Your task to perform on an android device: Open battery settings Image 0: 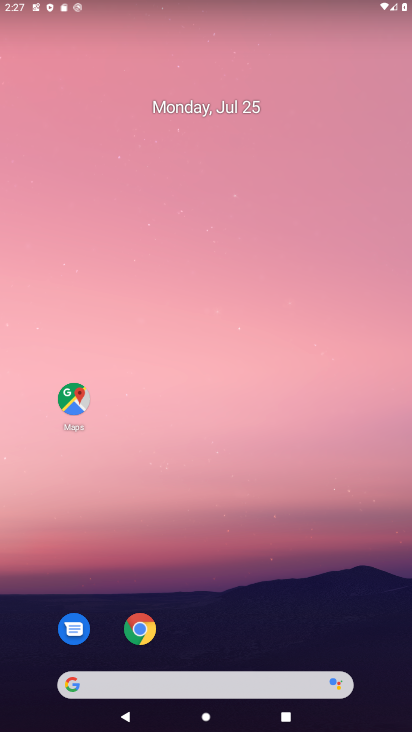
Step 0: drag from (65, 579) to (343, 28)
Your task to perform on an android device: Open battery settings Image 1: 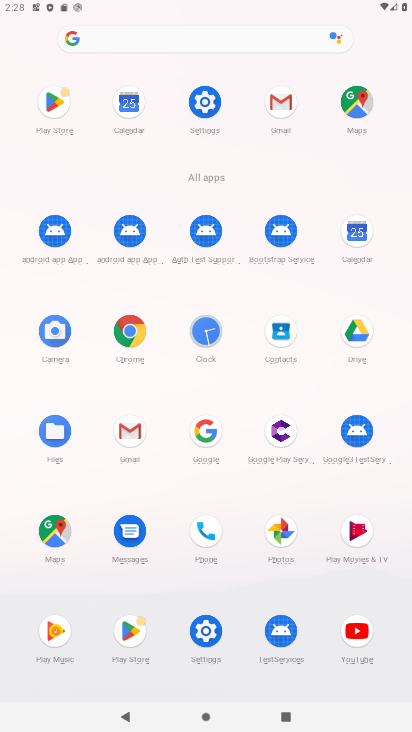
Step 1: click (196, 637)
Your task to perform on an android device: Open battery settings Image 2: 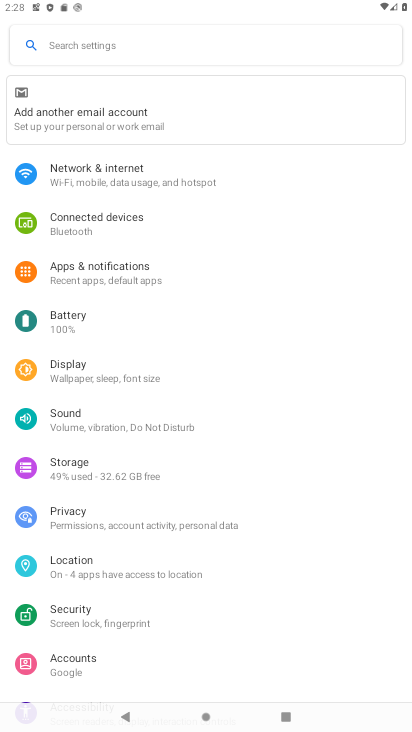
Step 2: click (77, 316)
Your task to perform on an android device: Open battery settings Image 3: 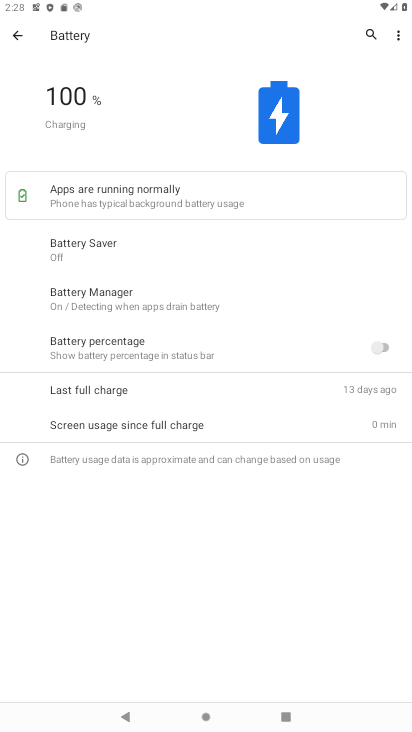
Step 3: task complete